Your task to perform on an android device: search for starred emails in the gmail app Image 0: 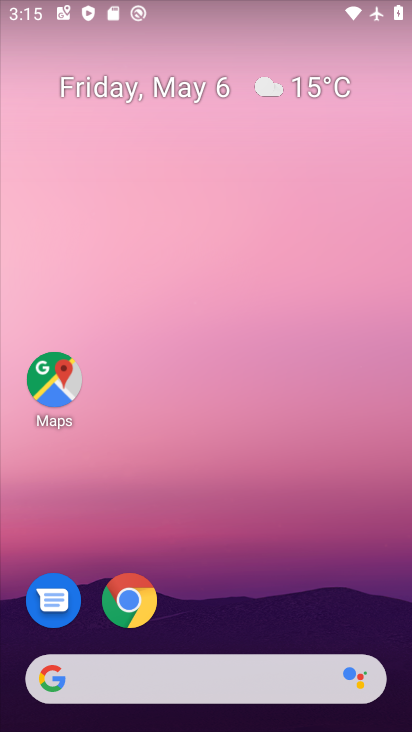
Step 0: drag from (207, 558) to (179, 3)
Your task to perform on an android device: search for starred emails in the gmail app Image 1: 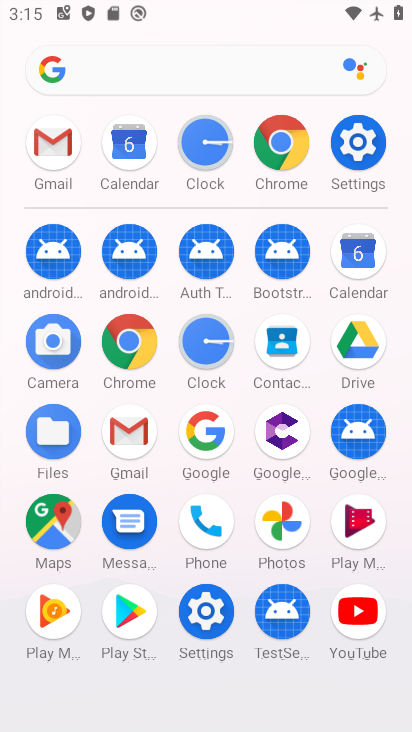
Step 1: drag from (7, 577) to (14, 224)
Your task to perform on an android device: search for starred emails in the gmail app Image 2: 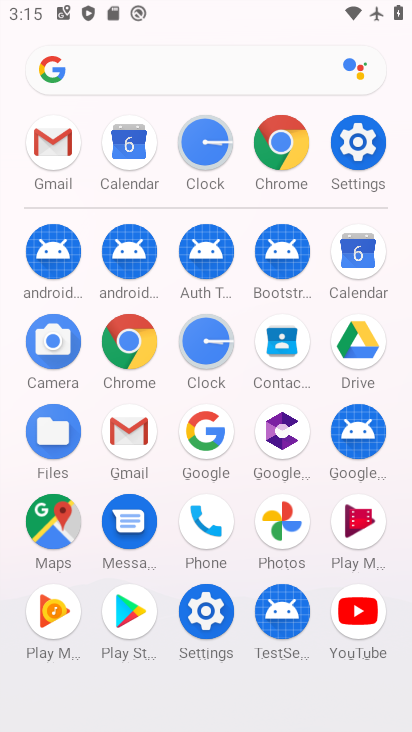
Step 2: click (133, 430)
Your task to perform on an android device: search for starred emails in the gmail app Image 3: 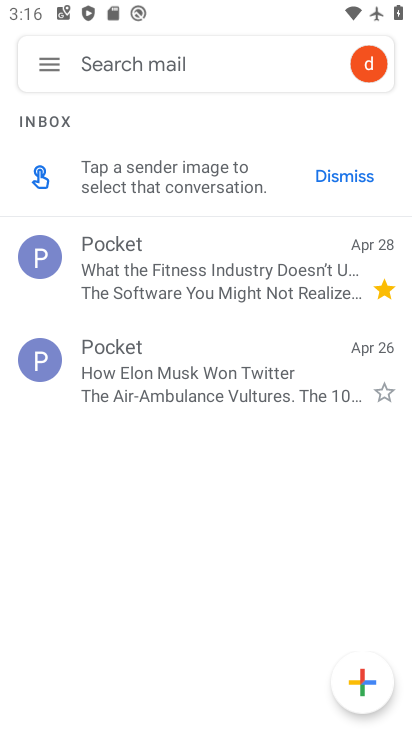
Step 3: click (53, 61)
Your task to perform on an android device: search for starred emails in the gmail app Image 4: 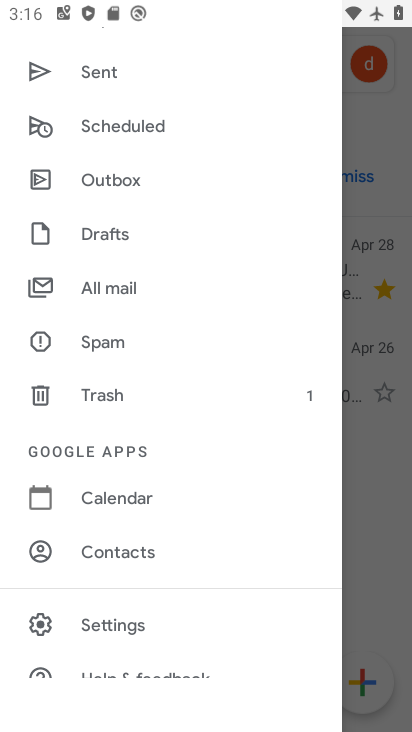
Step 4: drag from (192, 138) to (208, 478)
Your task to perform on an android device: search for starred emails in the gmail app Image 5: 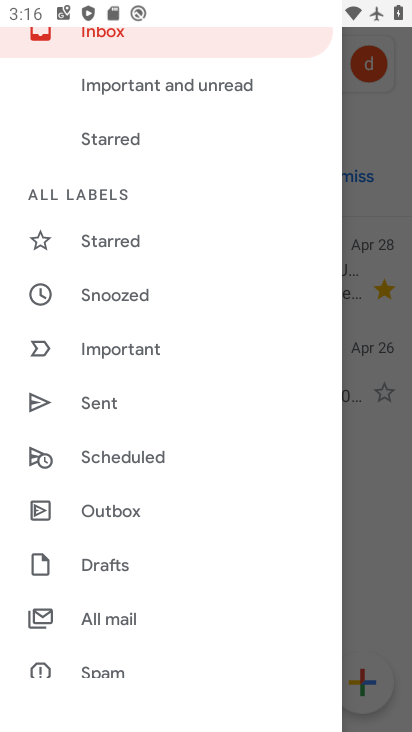
Step 5: click (140, 234)
Your task to perform on an android device: search for starred emails in the gmail app Image 6: 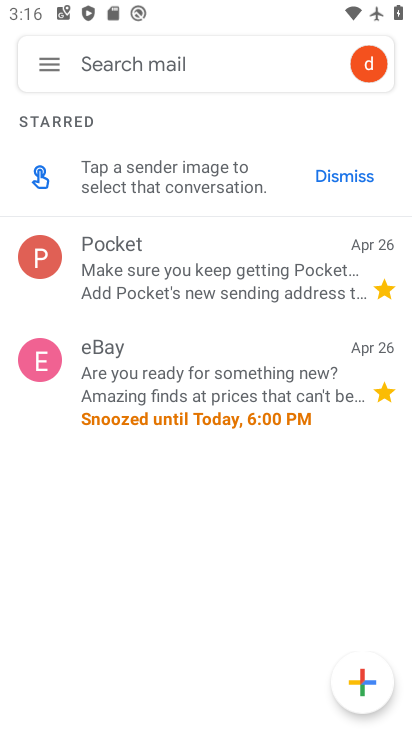
Step 6: click (42, 70)
Your task to perform on an android device: search for starred emails in the gmail app Image 7: 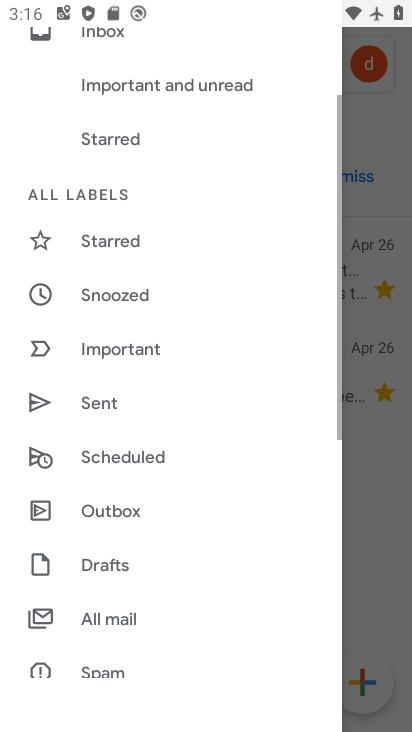
Step 7: click (123, 232)
Your task to perform on an android device: search for starred emails in the gmail app Image 8: 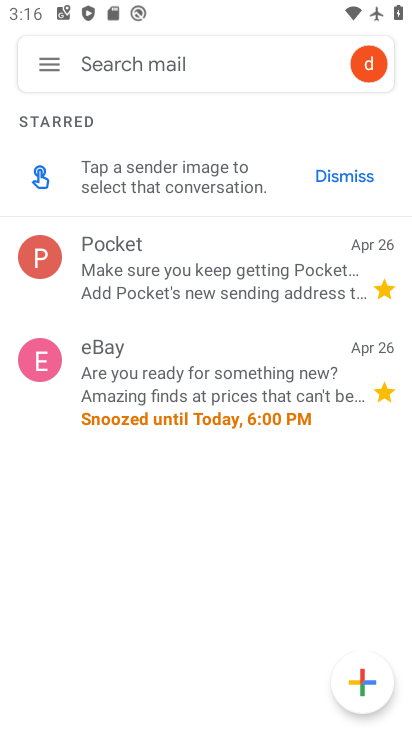
Step 8: task complete